Your task to perform on an android device: Open the Play Movies app and select the watchlist tab. Image 0: 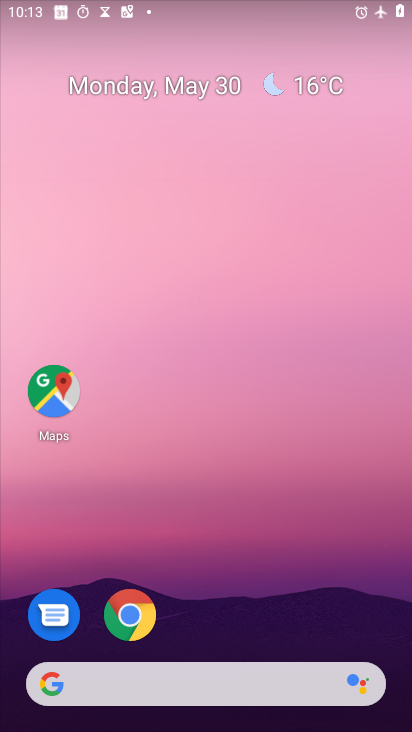
Step 0: click (275, 145)
Your task to perform on an android device: Open the Play Movies app and select the watchlist tab. Image 1: 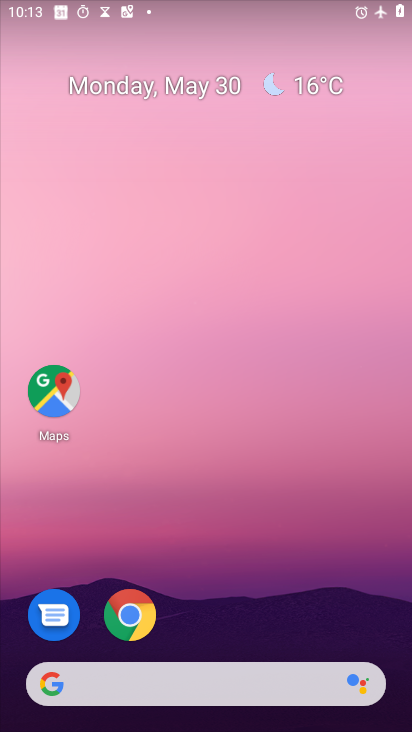
Step 1: drag from (298, 626) to (300, 109)
Your task to perform on an android device: Open the Play Movies app and select the watchlist tab. Image 2: 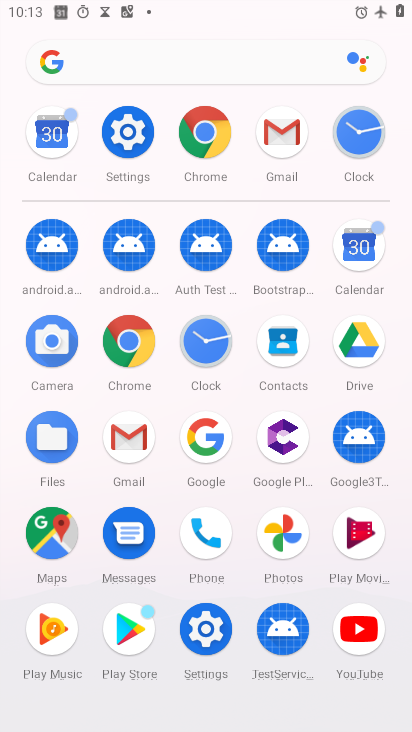
Step 2: click (350, 555)
Your task to perform on an android device: Open the Play Movies app and select the watchlist tab. Image 3: 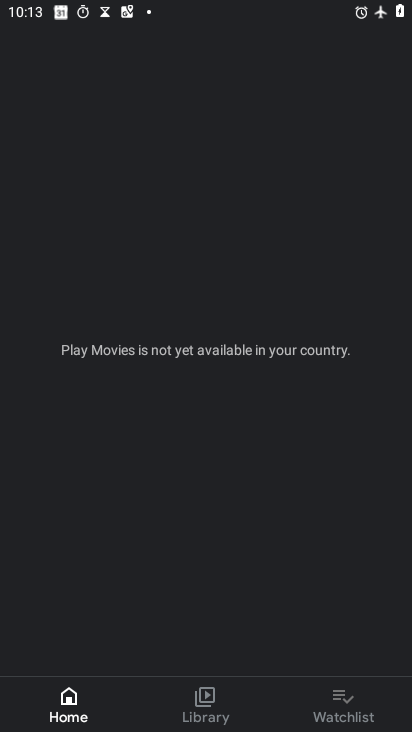
Step 3: click (352, 725)
Your task to perform on an android device: Open the Play Movies app and select the watchlist tab. Image 4: 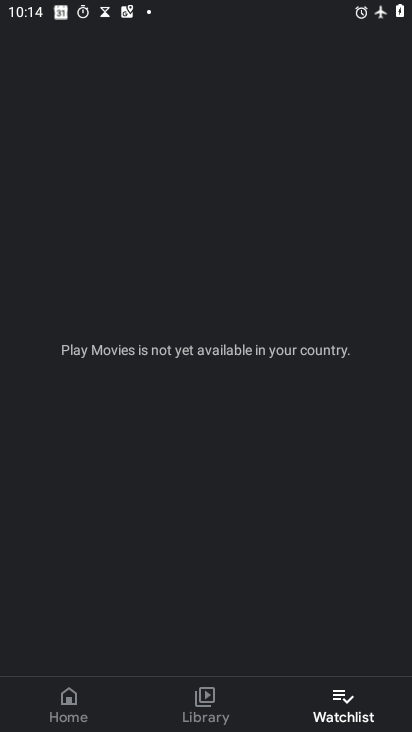
Step 4: task complete